Your task to perform on an android device: find photos in the google photos app Image 0: 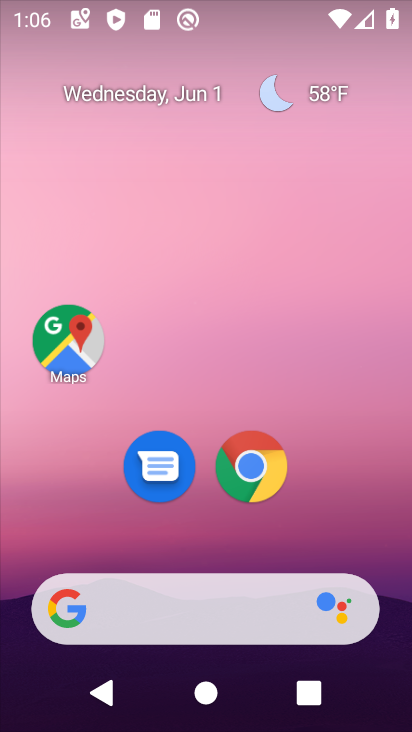
Step 0: drag from (400, 564) to (317, 231)
Your task to perform on an android device: find photos in the google photos app Image 1: 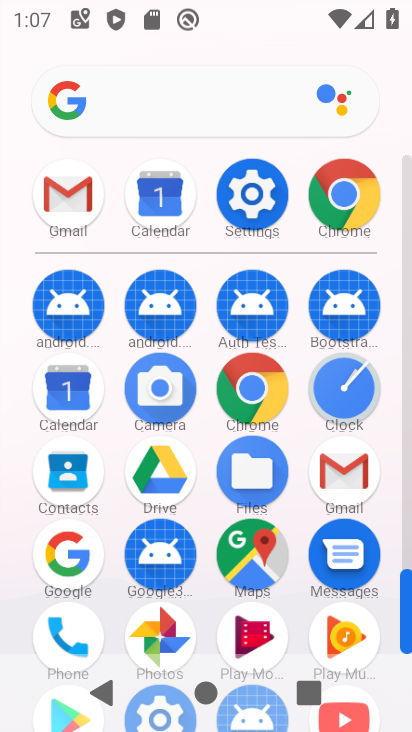
Step 1: click (164, 631)
Your task to perform on an android device: find photos in the google photos app Image 2: 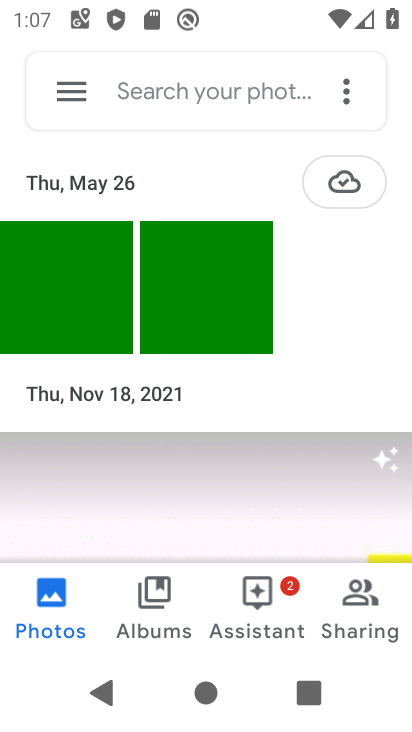
Step 2: task complete